Your task to perform on an android device: Clear all items from cart on ebay.com. Search for "asus rog" on ebay.com, select the first entry, and add it to the cart. Image 0: 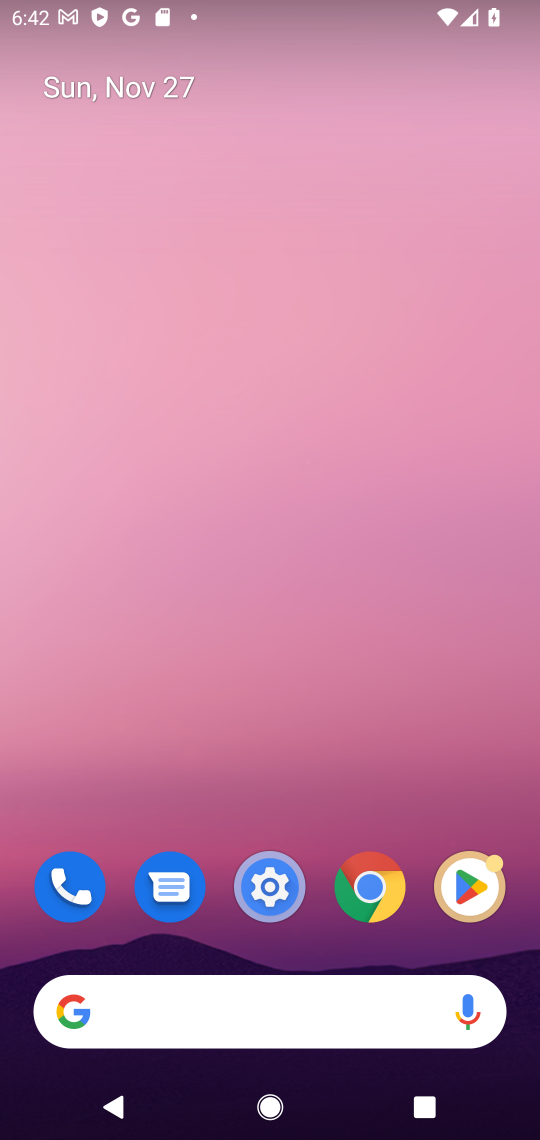
Step 0: click (273, 1022)
Your task to perform on an android device: Clear all items from cart on ebay.com. Search for "asus rog" on ebay.com, select the first entry, and add it to the cart. Image 1: 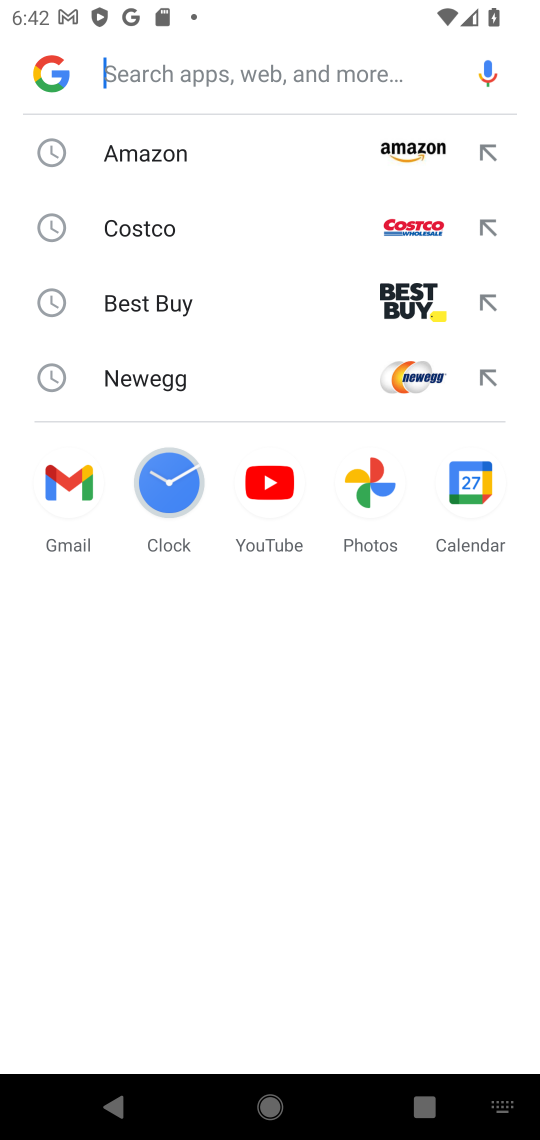
Step 1: type "ebay.com"
Your task to perform on an android device: Clear all items from cart on ebay.com. Search for "asus rog" on ebay.com, select the first entry, and add it to the cart. Image 2: 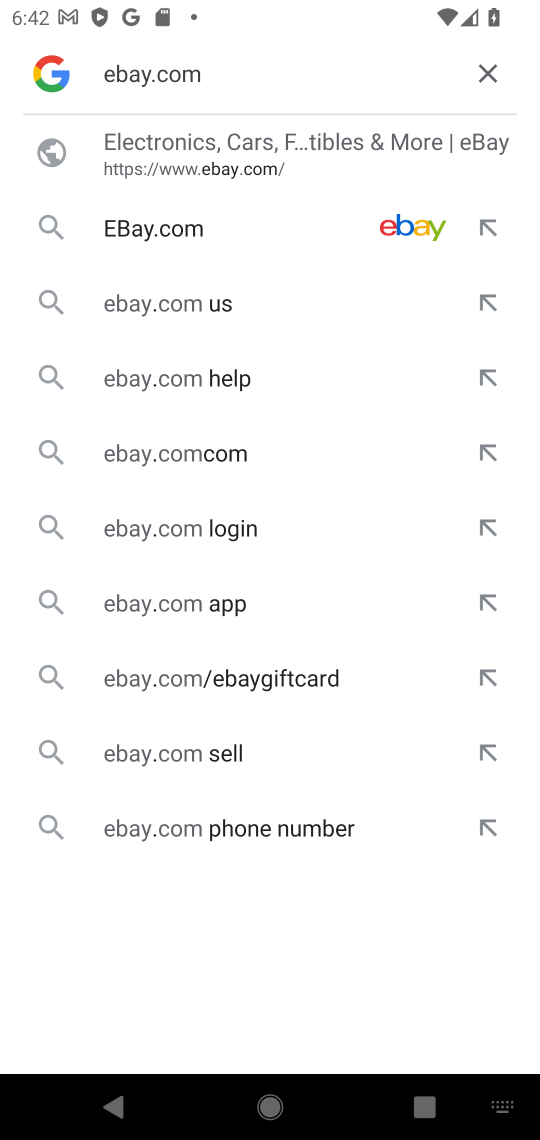
Step 2: click (221, 142)
Your task to perform on an android device: Clear all items from cart on ebay.com. Search for "asus rog" on ebay.com, select the first entry, and add it to the cart. Image 3: 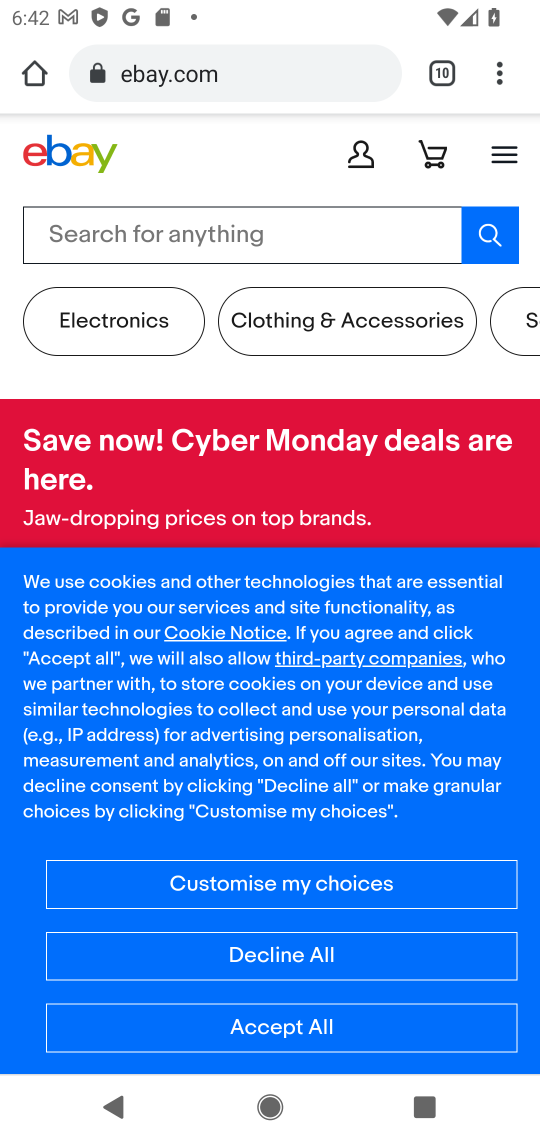
Step 3: click (377, 1006)
Your task to perform on an android device: Clear all items from cart on ebay.com. Search for "asus rog" on ebay.com, select the first entry, and add it to the cart. Image 4: 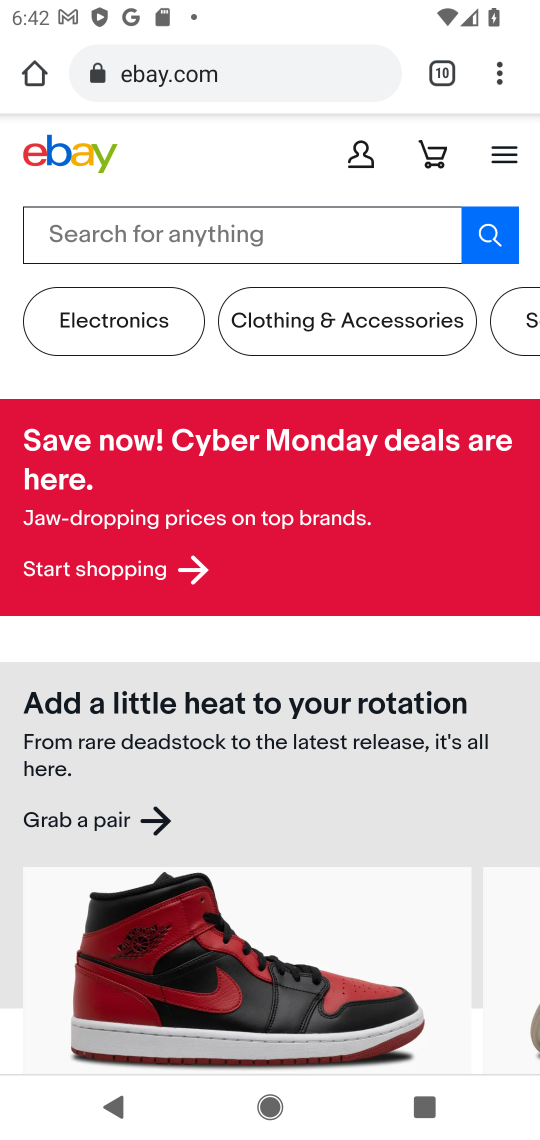
Step 4: task complete